Your task to perform on an android device: Find coffee shops on Maps Image 0: 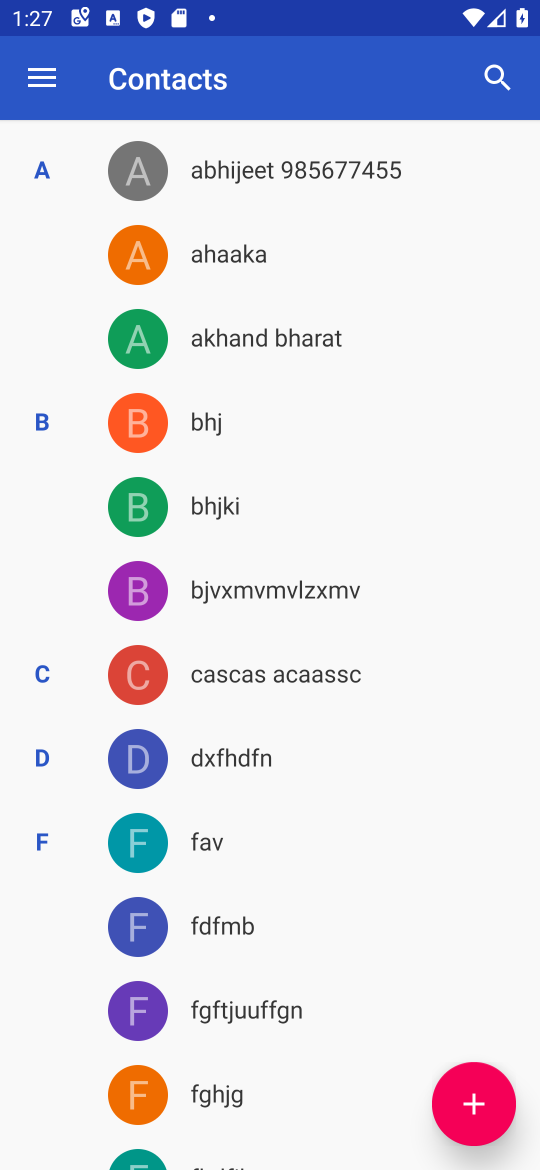
Step 0: press home button
Your task to perform on an android device: Find coffee shops on Maps Image 1: 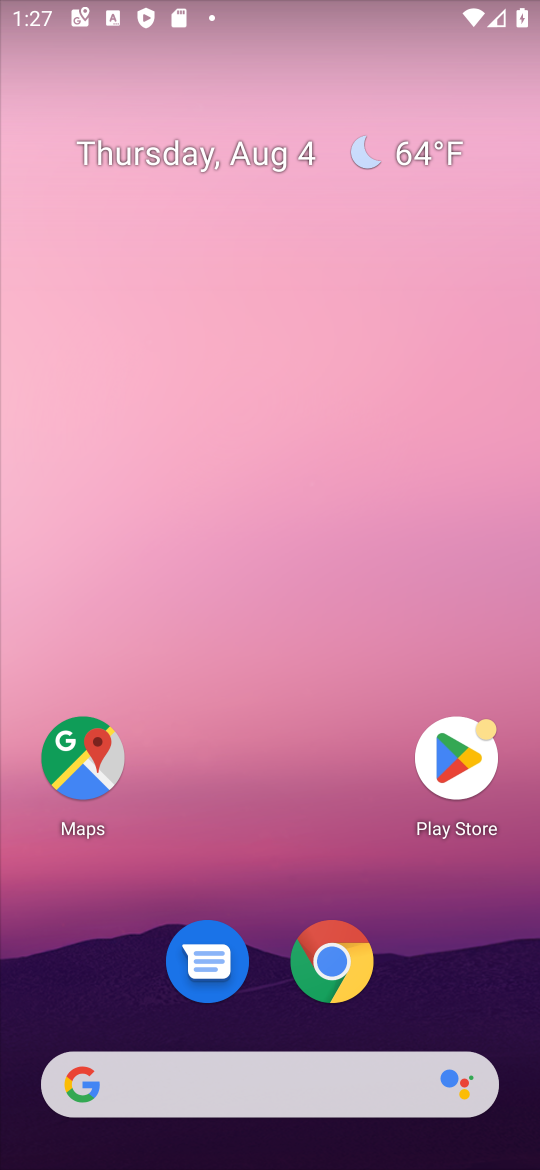
Step 1: click (85, 766)
Your task to perform on an android device: Find coffee shops on Maps Image 2: 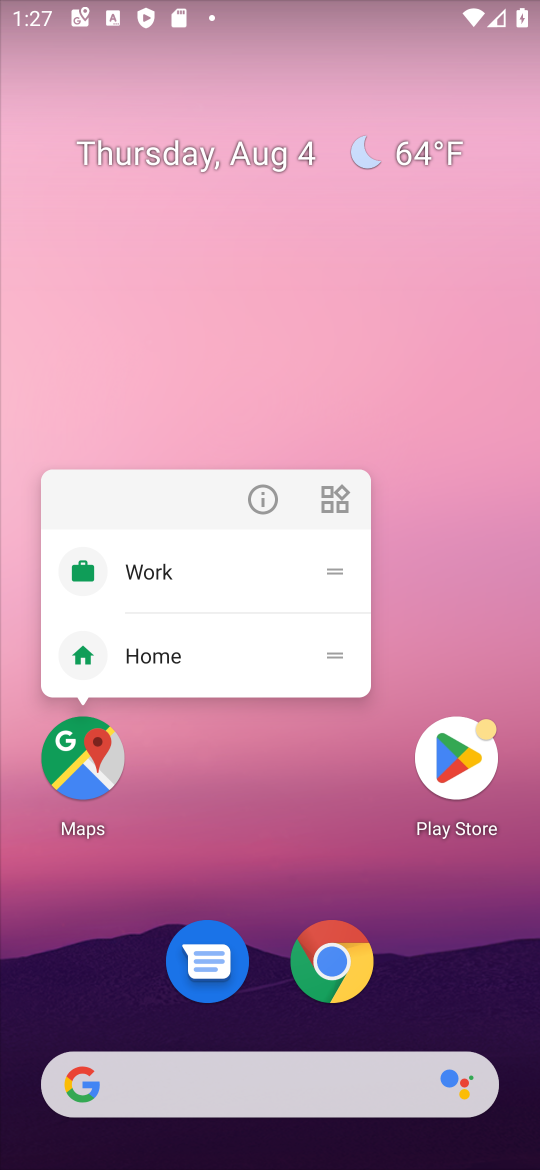
Step 2: click (85, 766)
Your task to perform on an android device: Find coffee shops on Maps Image 3: 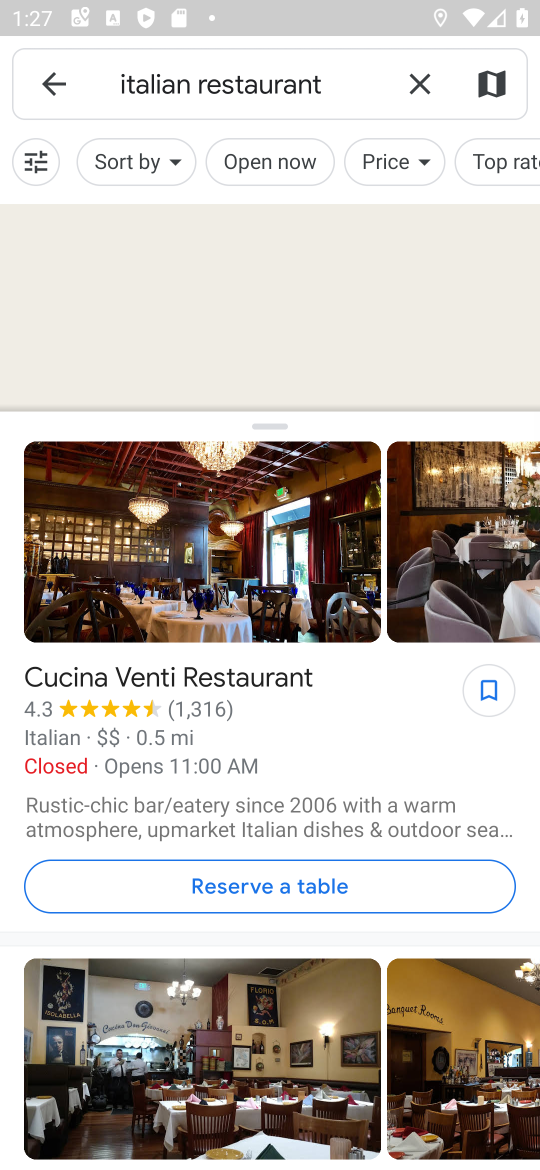
Step 3: click (425, 85)
Your task to perform on an android device: Find coffee shops on Maps Image 4: 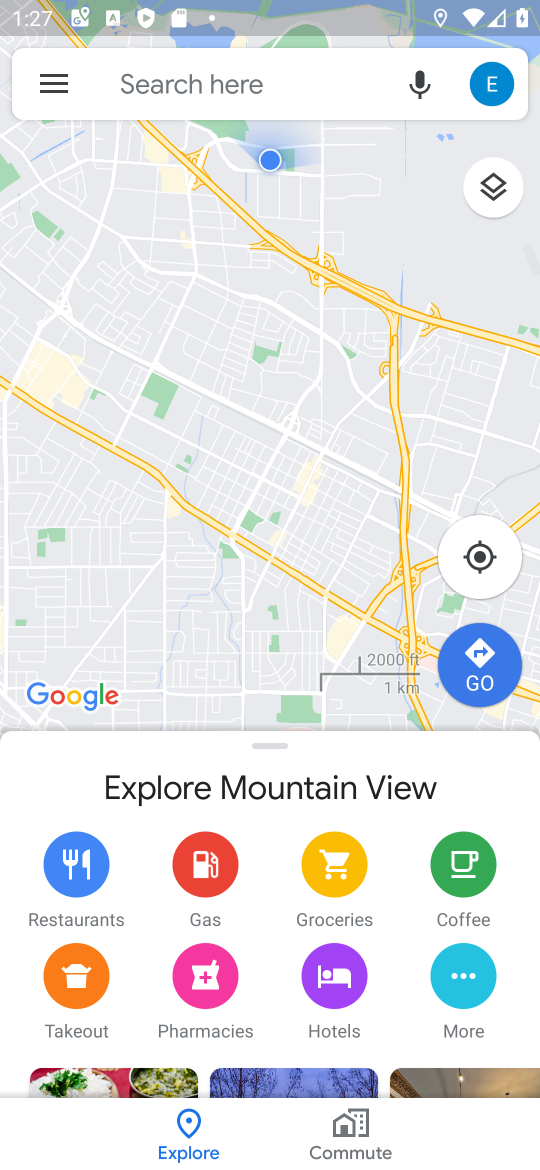
Step 4: click (220, 79)
Your task to perform on an android device: Find coffee shops on Maps Image 5: 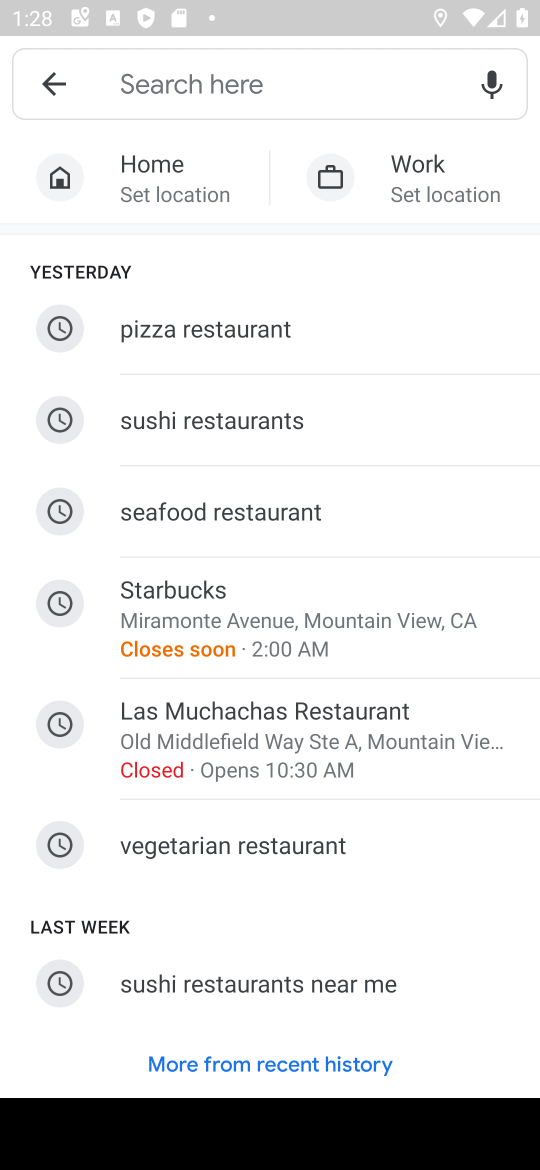
Step 5: type "coffee shop"
Your task to perform on an android device: Find coffee shops on Maps Image 6: 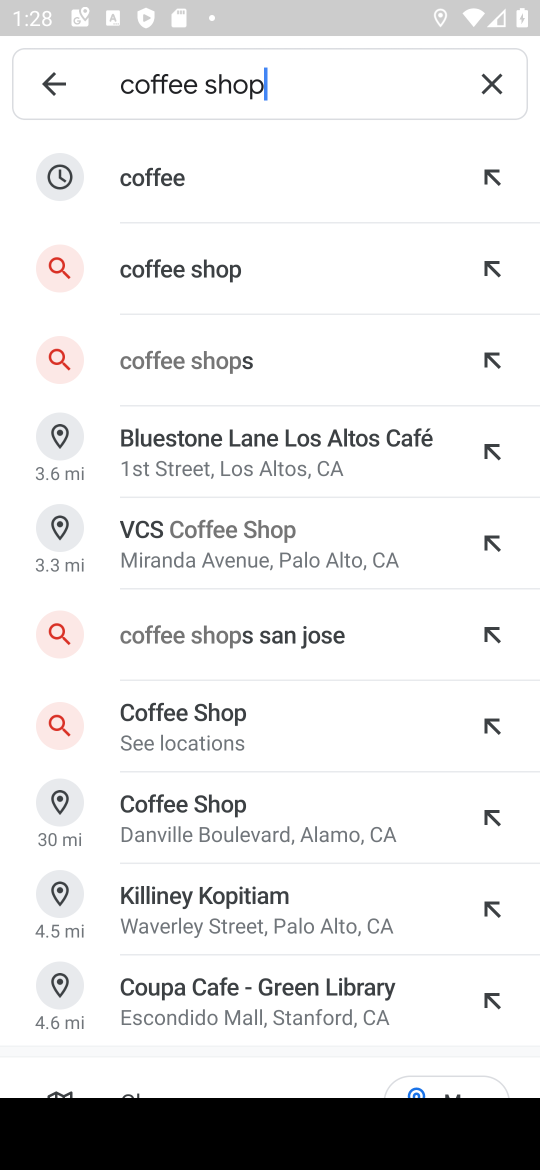
Step 6: click (226, 268)
Your task to perform on an android device: Find coffee shops on Maps Image 7: 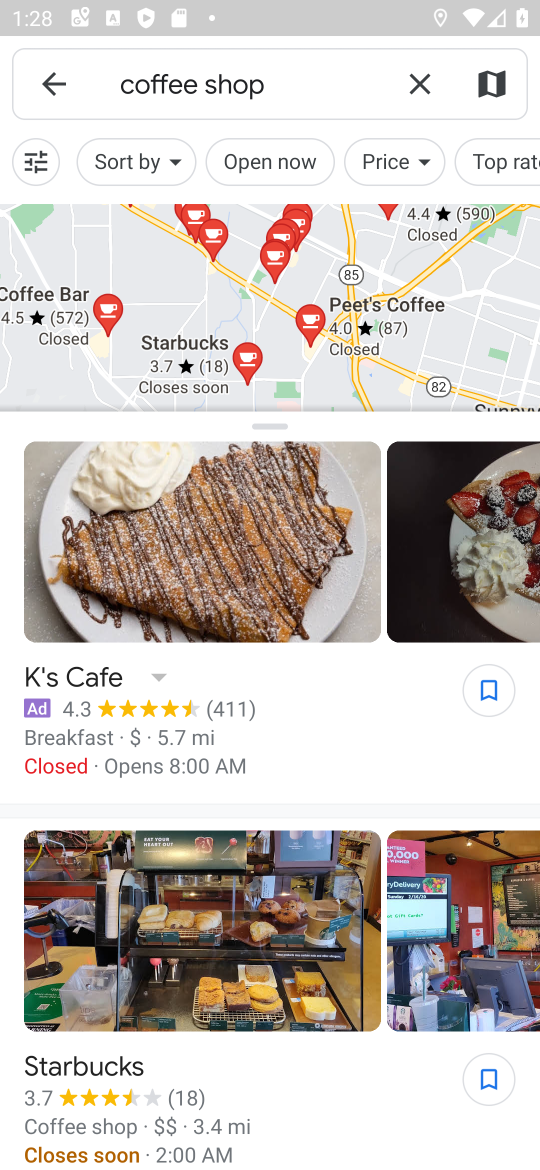
Step 7: task complete